Your task to perform on an android device: Open Wikipedia Image 0: 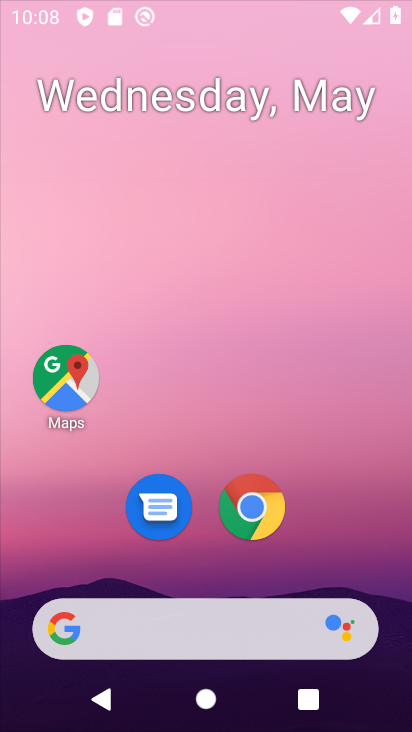
Step 0: press home button
Your task to perform on an android device: Open Wikipedia Image 1: 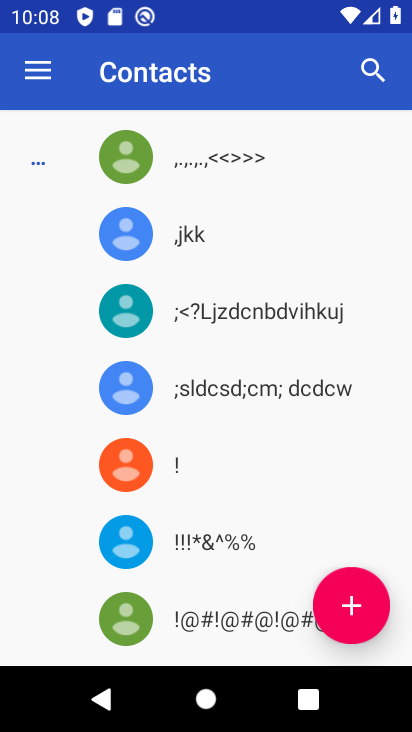
Step 1: drag from (207, 554) to (236, 99)
Your task to perform on an android device: Open Wikipedia Image 2: 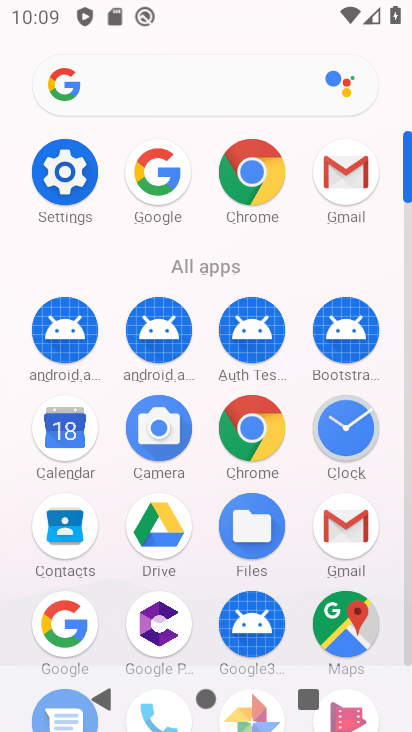
Step 2: click (250, 166)
Your task to perform on an android device: Open Wikipedia Image 3: 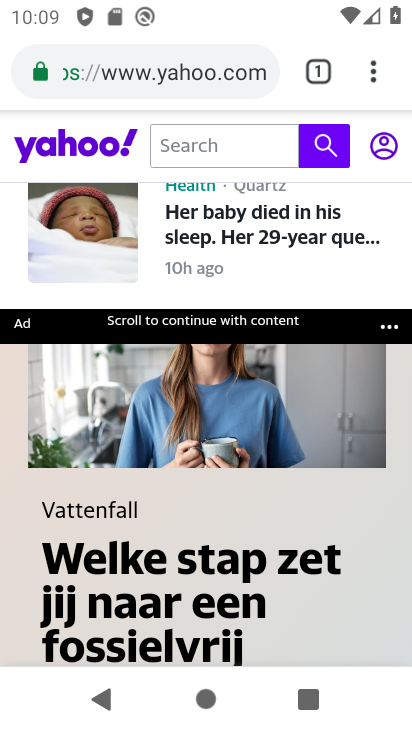
Step 3: click (365, 78)
Your task to perform on an android device: Open Wikipedia Image 4: 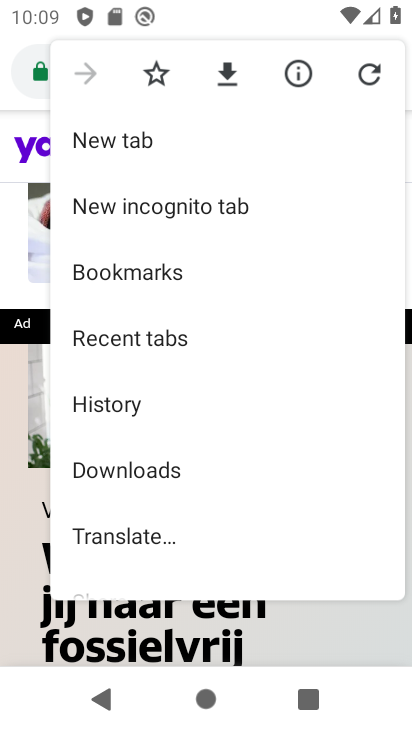
Step 4: click (34, 328)
Your task to perform on an android device: Open Wikipedia Image 5: 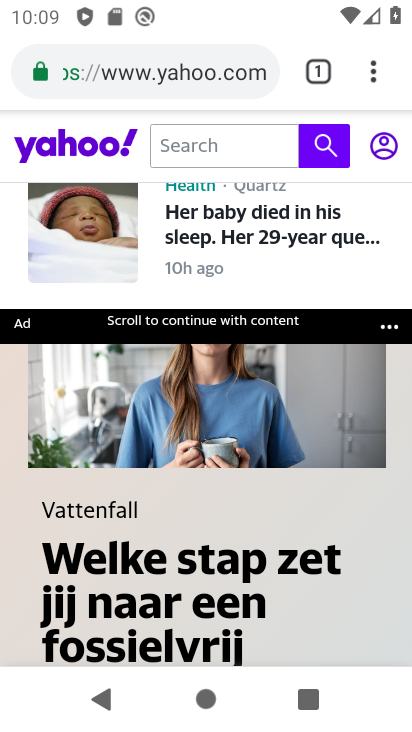
Step 5: click (308, 71)
Your task to perform on an android device: Open Wikipedia Image 6: 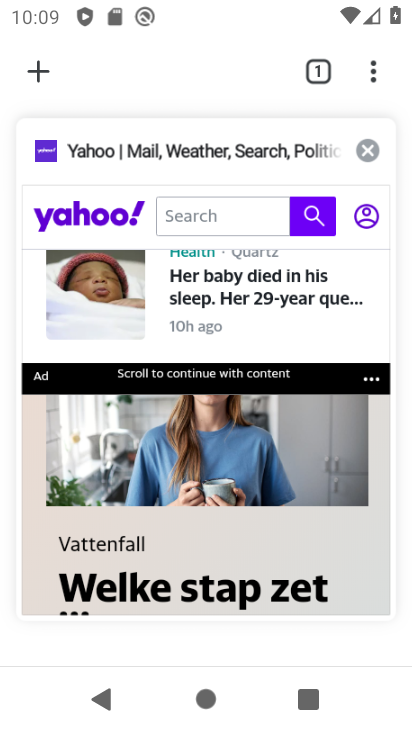
Step 6: click (39, 70)
Your task to perform on an android device: Open Wikipedia Image 7: 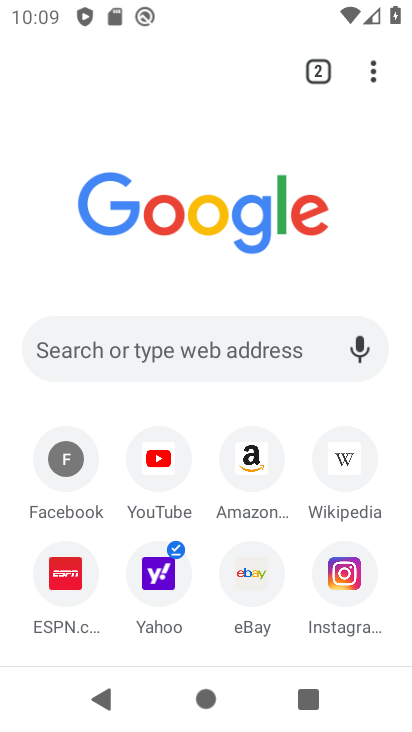
Step 7: click (341, 449)
Your task to perform on an android device: Open Wikipedia Image 8: 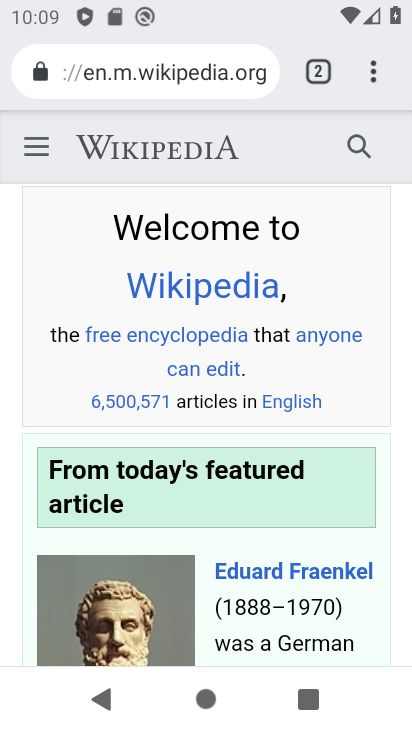
Step 8: task complete